Your task to perform on an android device: turn on javascript in the chrome app Image 0: 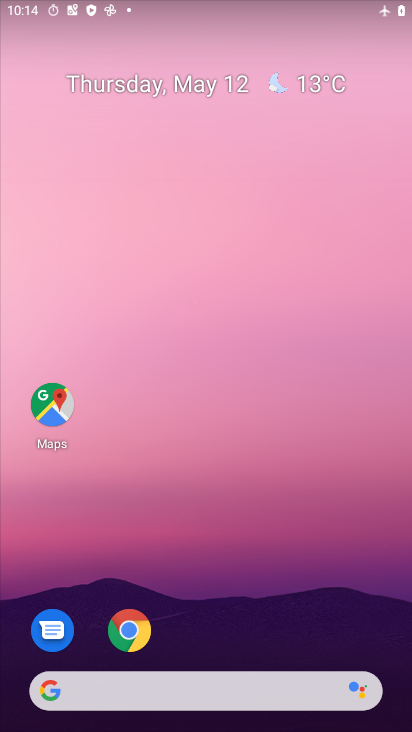
Step 0: click (120, 637)
Your task to perform on an android device: turn on javascript in the chrome app Image 1: 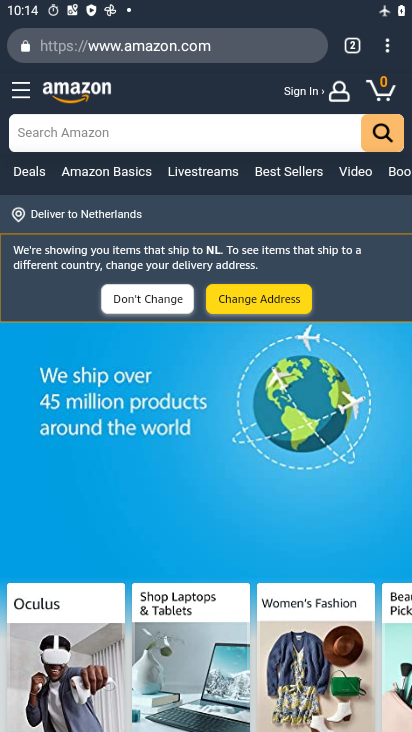
Step 1: drag from (388, 53) to (229, 564)
Your task to perform on an android device: turn on javascript in the chrome app Image 2: 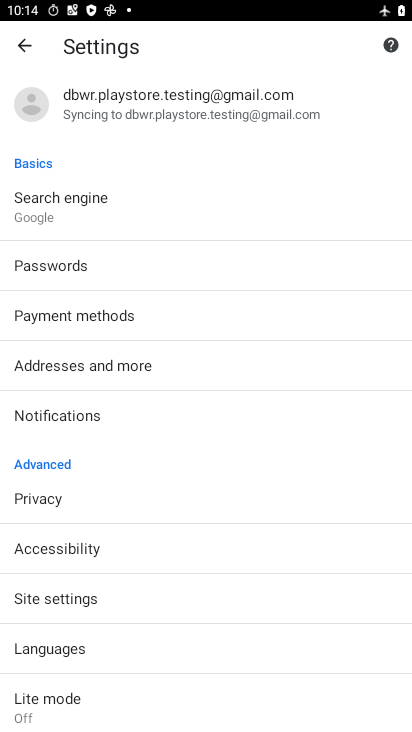
Step 2: click (38, 606)
Your task to perform on an android device: turn on javascript in the chrome app Image 3: 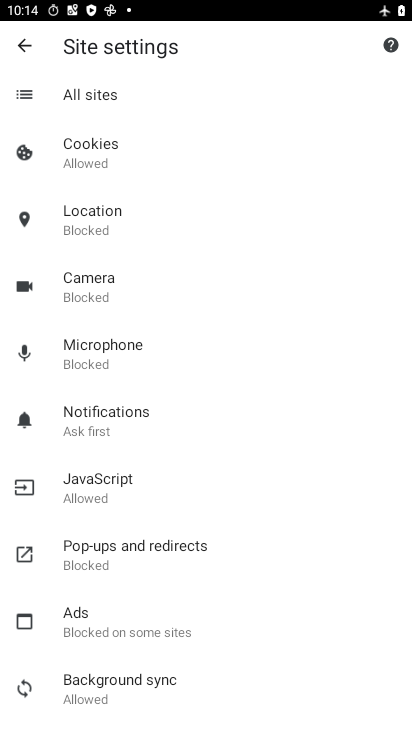
Step 3: click (108, 497)
Your task to perform on an android device: turn on javascript in the chrome app Image 4: 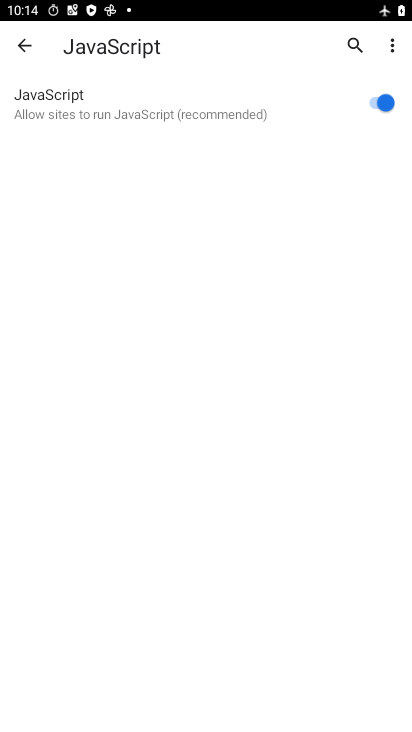
Step 4: task complete